Your task to perform on an android device: Open sound settings Image 0: 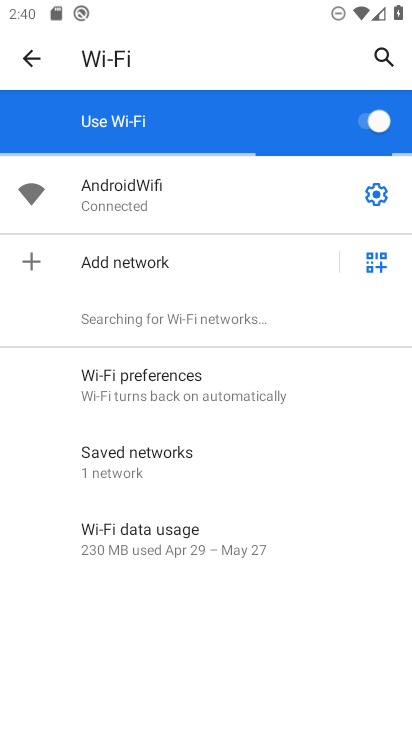
Step 0: press home button
Your task to perform on an android device: Open sound settings Image 1: 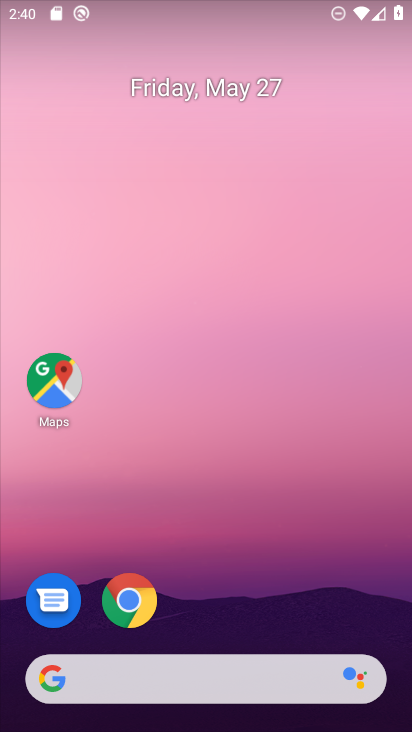
Step 1: drag from (205, 716) to (208, 144)
Your task to perform on an android device: Open sound settings Image 2: 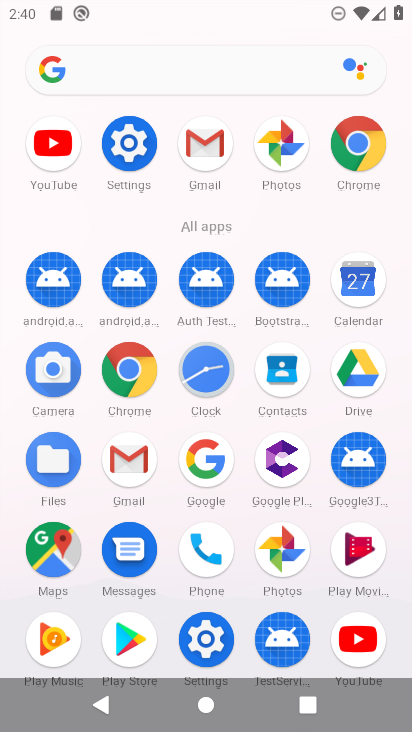
Step 2: click (118, 144)
Your task to perform on an android device: Open sound settings Image 3: 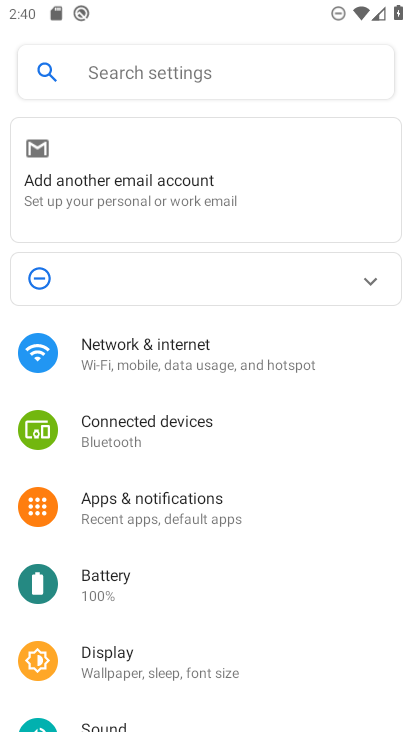
Step 3: drag from (134, 701) to (134, 389)
Your task to perform on an android device: Open sound settings Image 4: 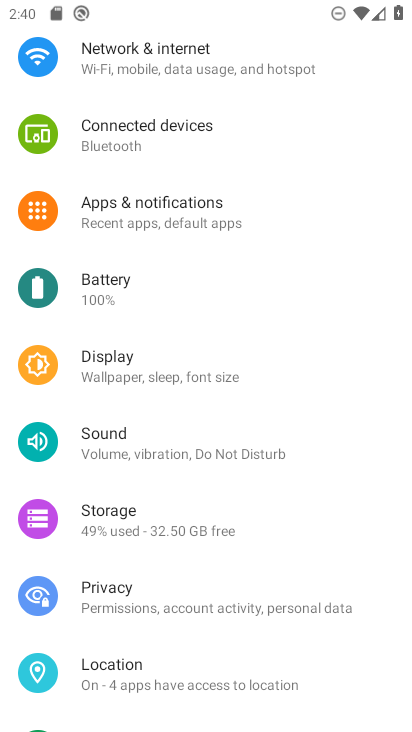
Step 4: click (108, 446)
Your task to perform on an android device: Open sound settings Image 5: 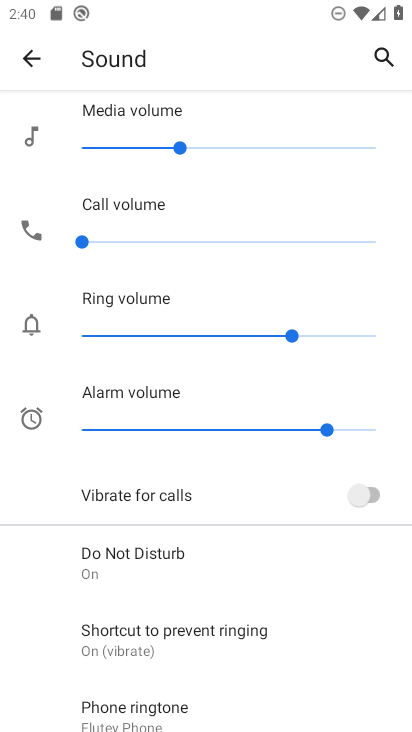
Step 5: task complete